Your task to perform on an android device: all mails in gmail Image 0: 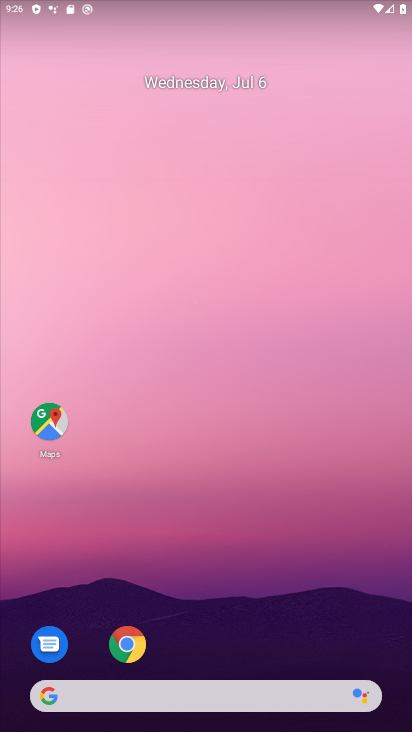
Step 0: drag from (320, 711) to (115, 142)
Your task to perform on an android device: all mails in gmail Image 1: 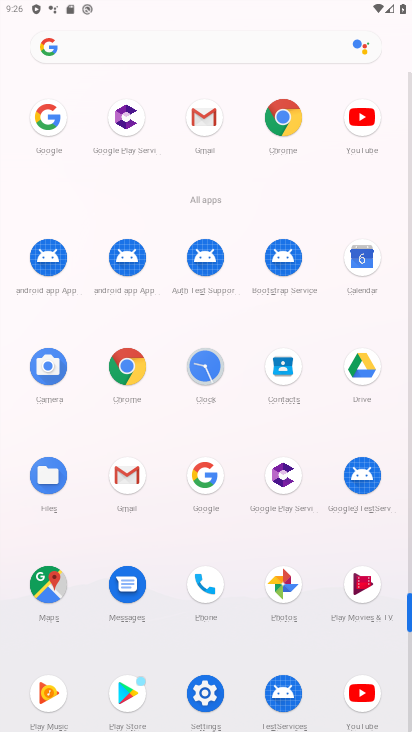
Step 1: click (200, 121)
Your task to perform on an android device: all mails in gmail Image 2: 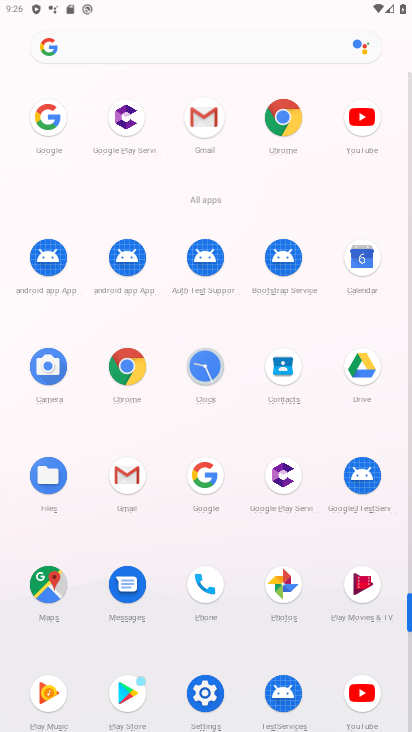
Step 2: click (198, 121)
Your task to perform on an android device: all mails in gmail Image 3: 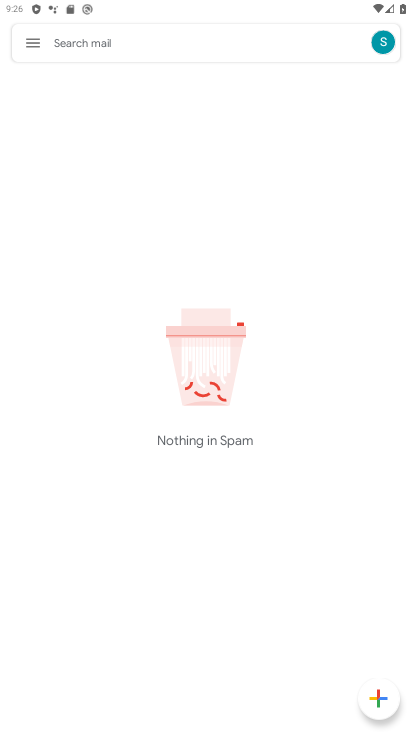
Step 3: click (31, 45)
Your task to perform on an android device: all mails in gmail Image 4: 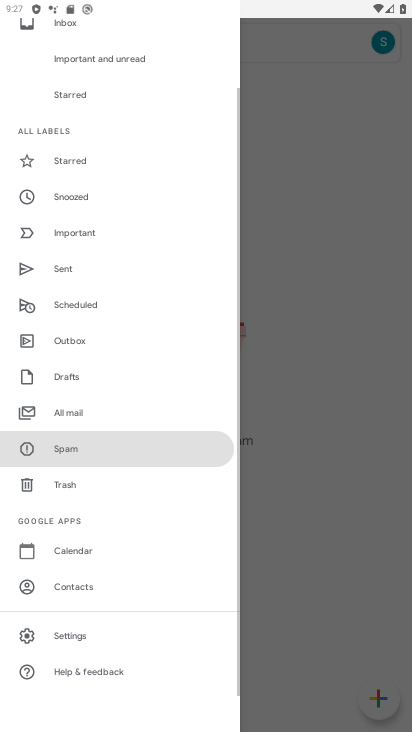
Step 4: click (82, 416)
Your task to perform on an android device: all mails in gmail Image 5: 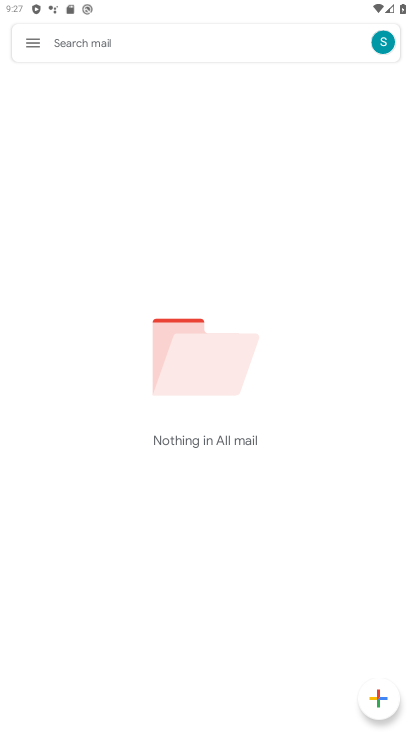
Step 5: task complete